Your task to perform on an android device: Open the calendar and show me this week's events Image 0: 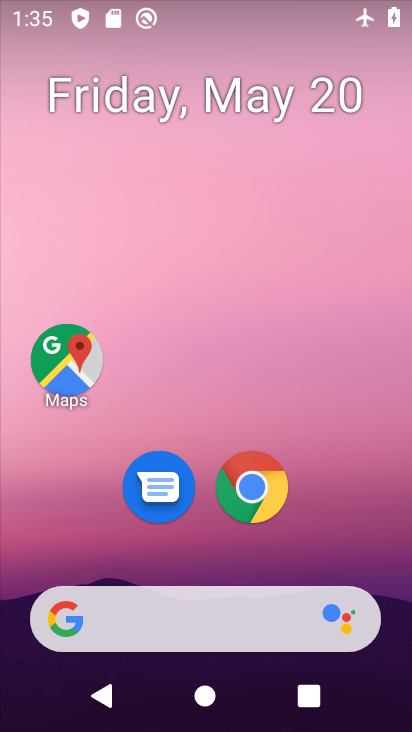
Step 0: drag from (332, 486) to (366, 3)
Your task to perform on an android device: Open the calendar and show me this week's events Image 1: 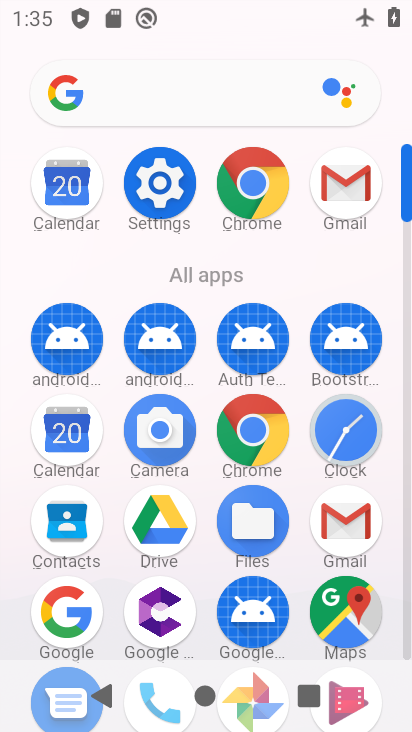
Step 1: click (77, 449)
Your task to perform on an android device: Open the calendar and show me this week's events Image 2: 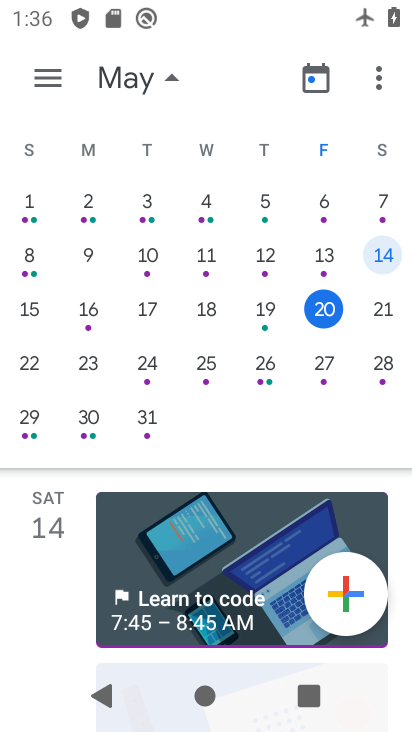
Step 2: task complete